Your task to perform on an android device: Go to Reddit.com Image 0: 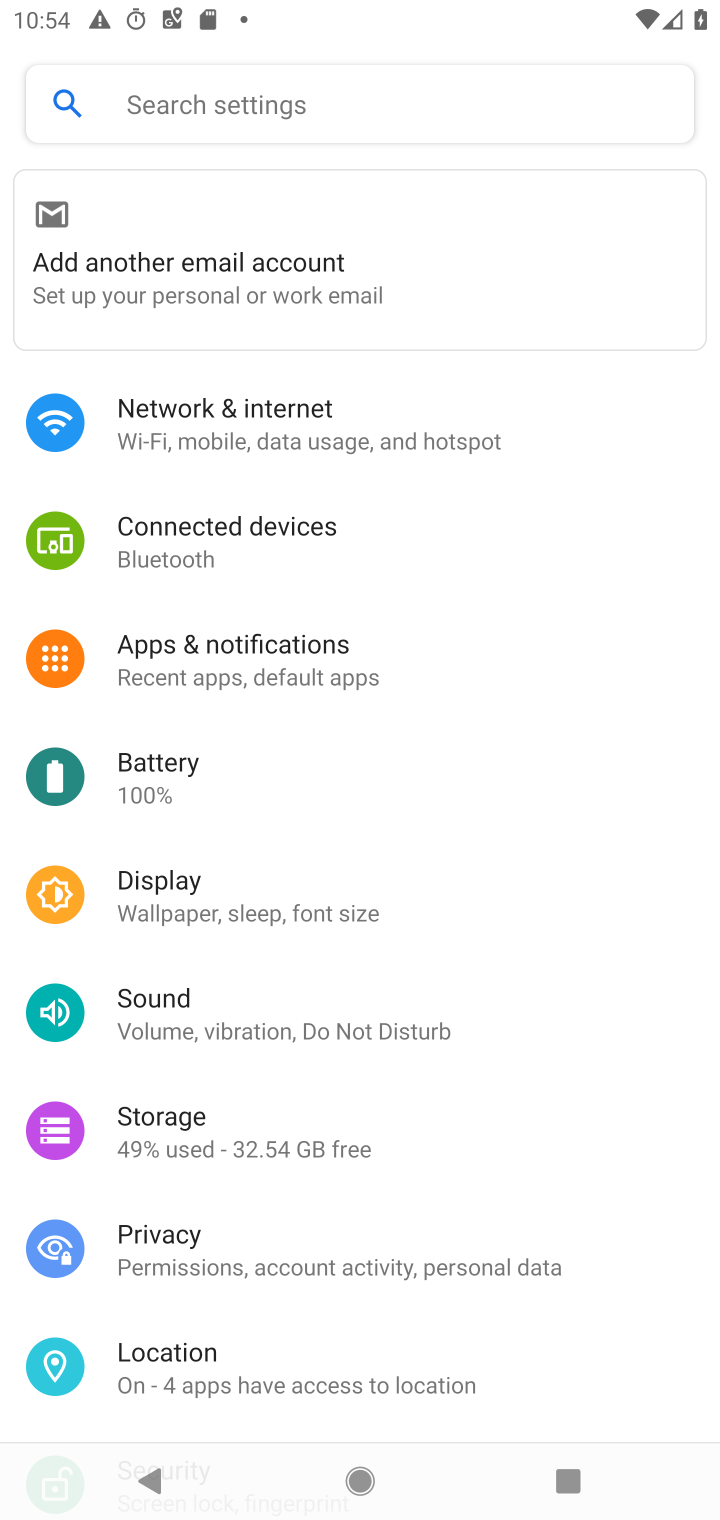
Step 0: press home button
Your task to perform on an android device: Go to Reddit.com Image 1: 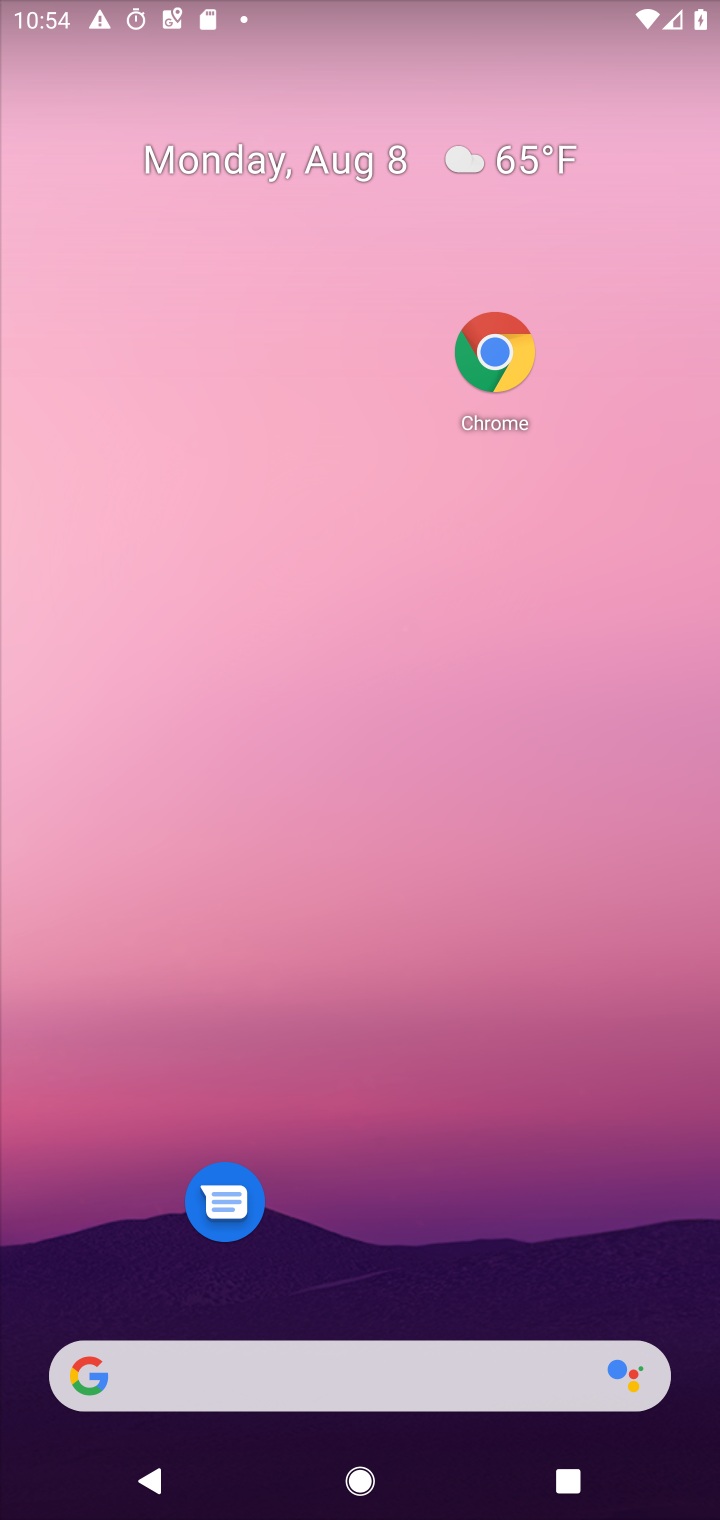
Step 1: drag from (348, 888) to (339, 666)
Your task to perform on an android device: Go to Reddit.com Image 2: 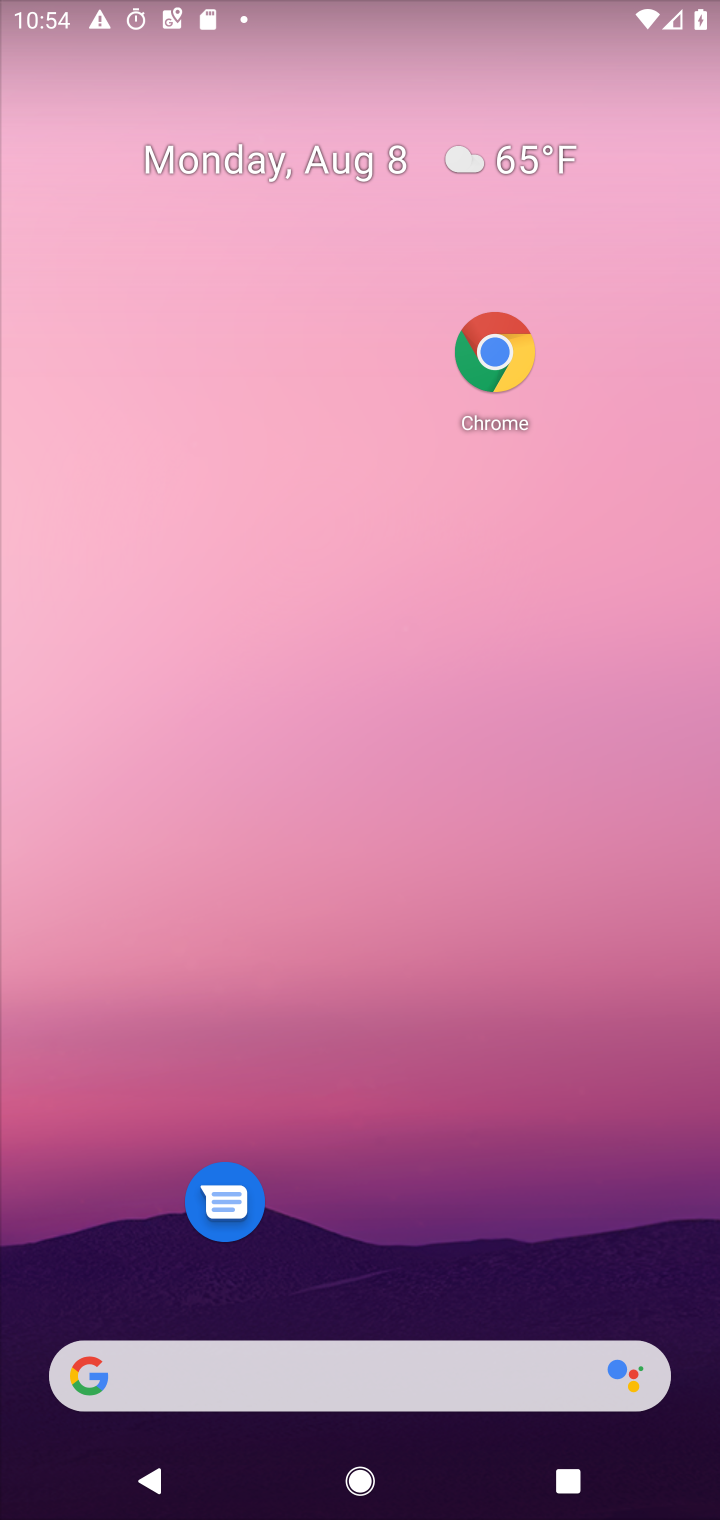
Step 2: click (507, 373)
Your task to perform on an android device: Go to Reddit.com Image 3: 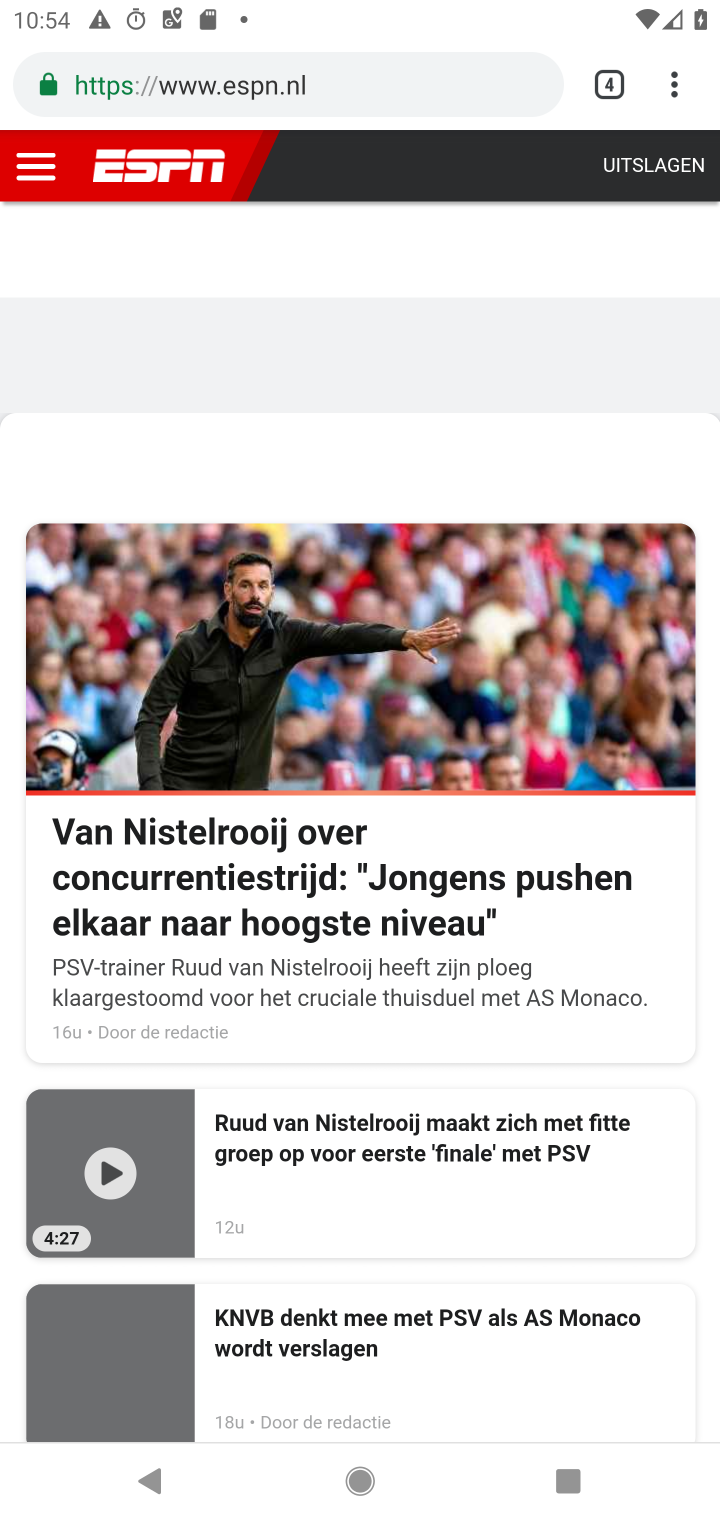
Step 3: click (666, 87)
Your task to perform on an android device: Go to Reddit.com Image 4: 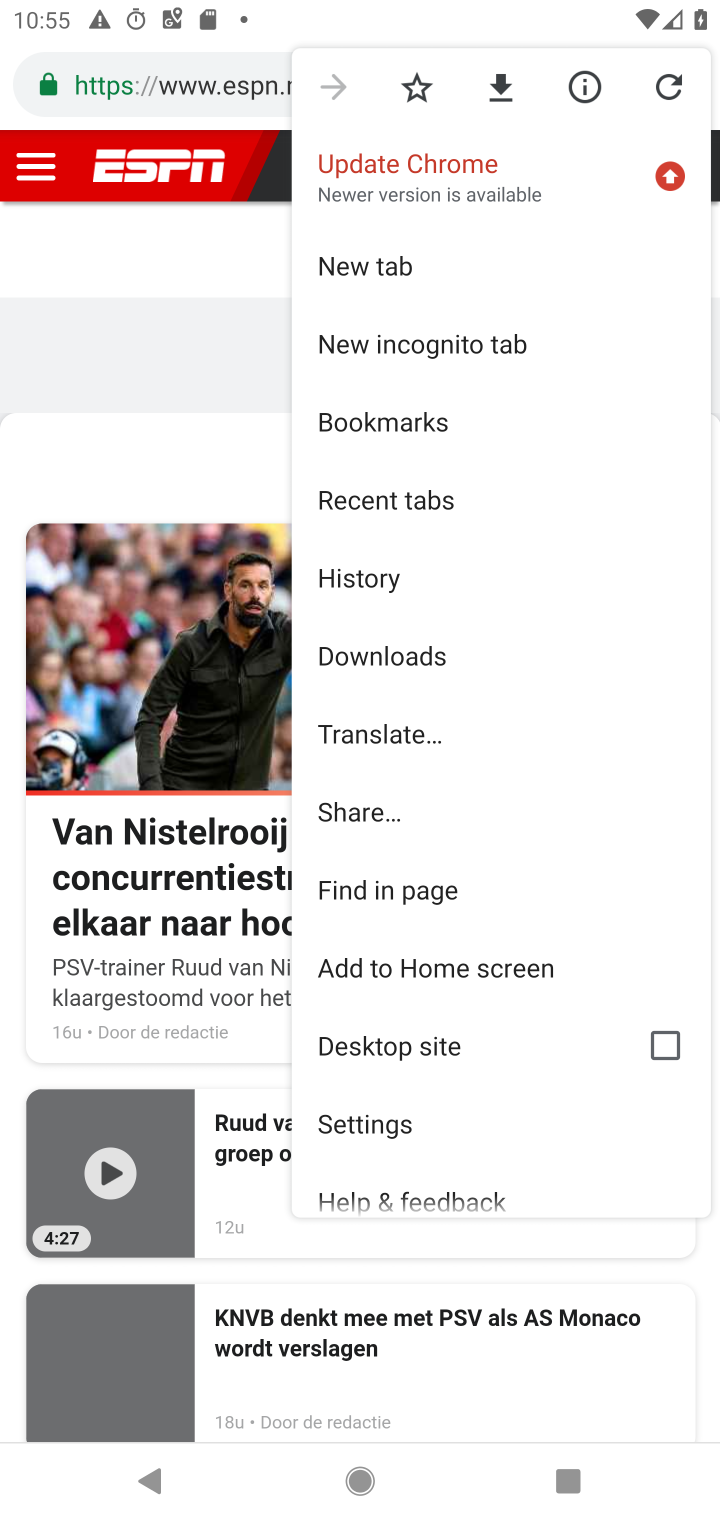
Step 4: click (185, 383)
Your task to perform on an android device: Go to Reddit.com Image 5: 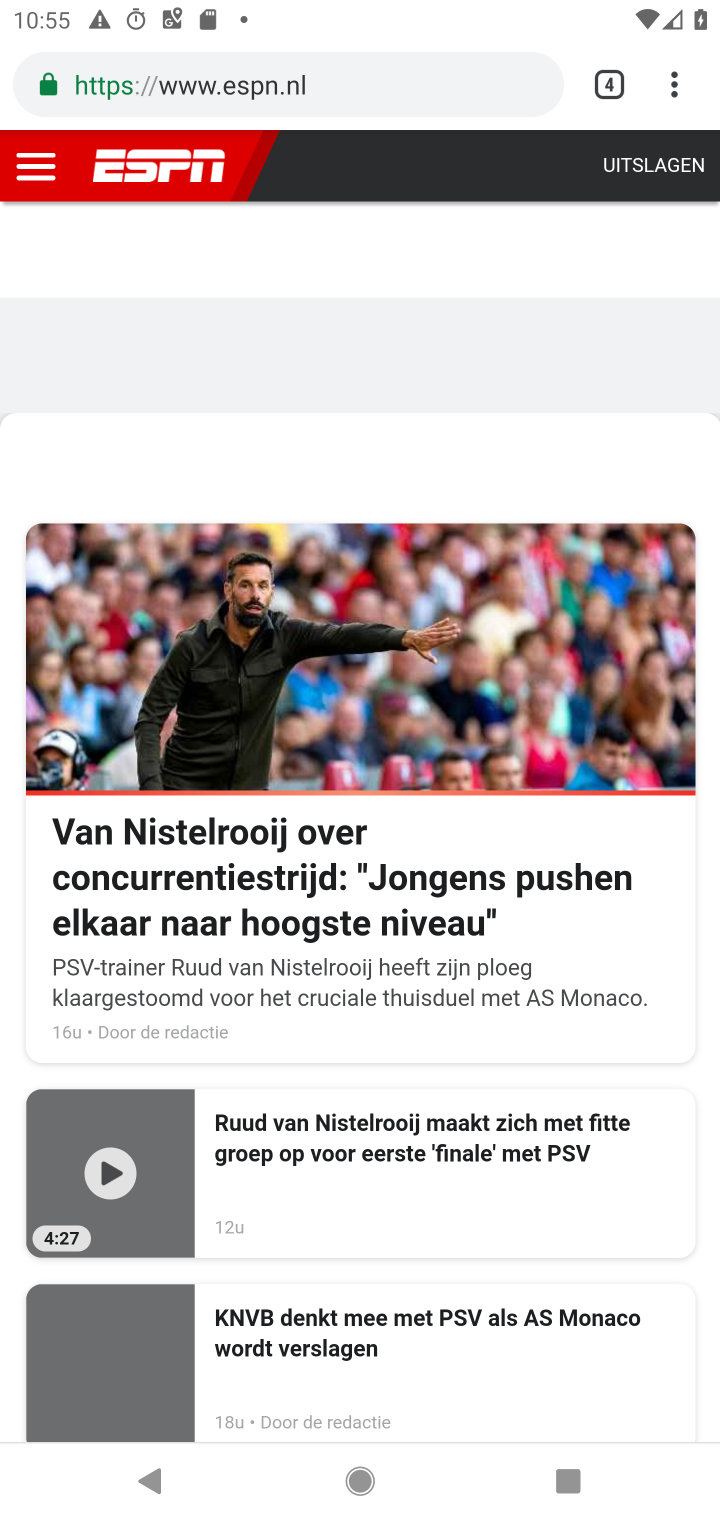
Step 5: click (133, 257)
Your task to perform on an android device: Go to Reddit.com Image 6: 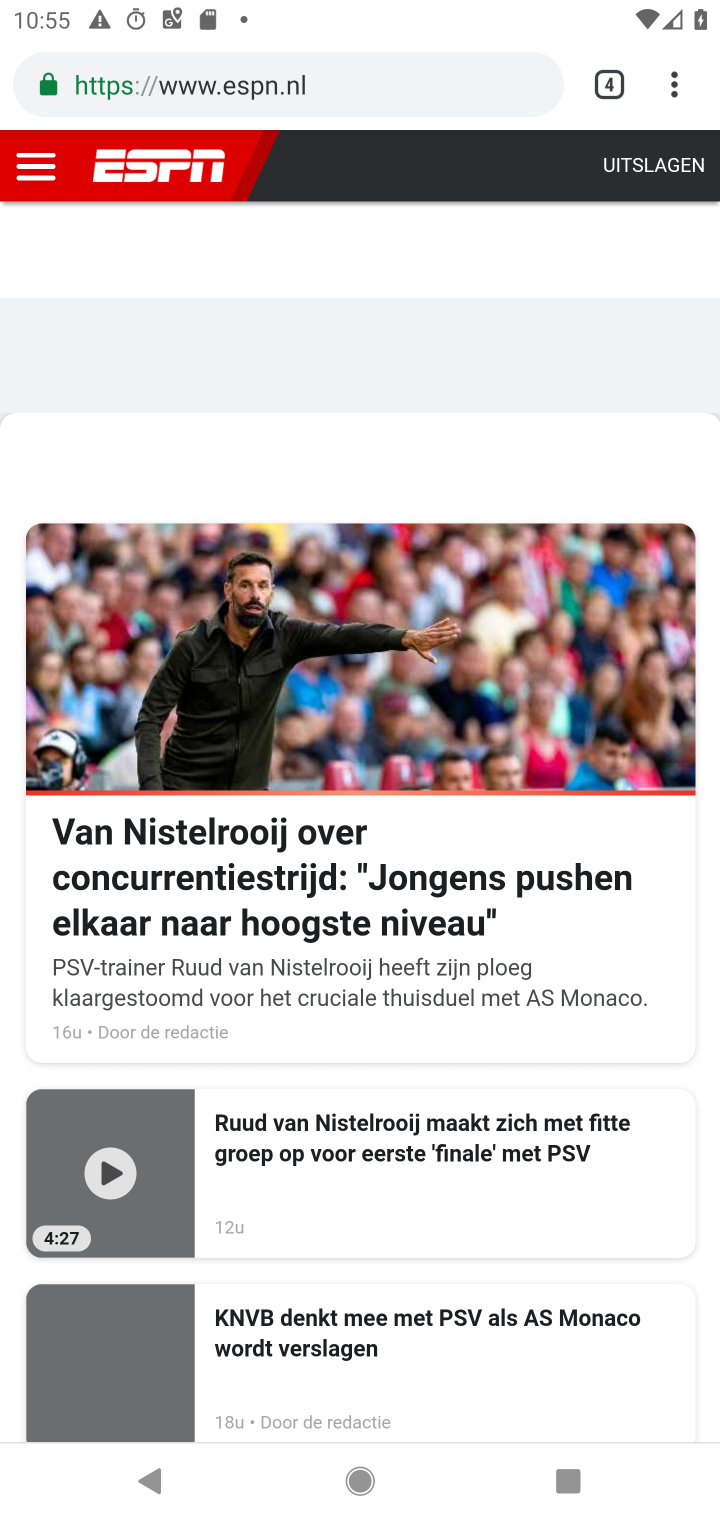
Step 6: click (279, 84)
Your task to perform on an android device: Go to Reddit.com Image 7: 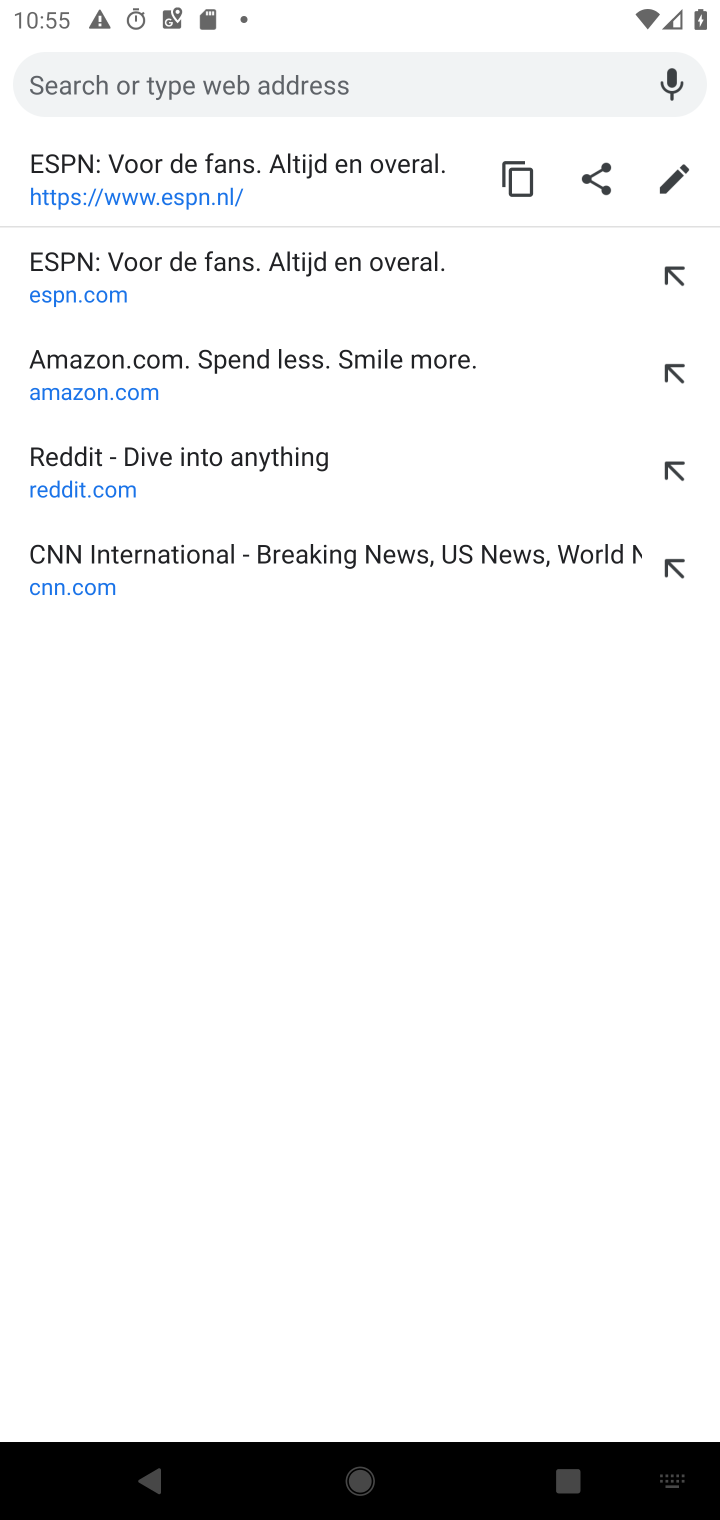
Step 7: click (162, 450)
Your task to perform on an android device: Go to Reddit.com Image 8: 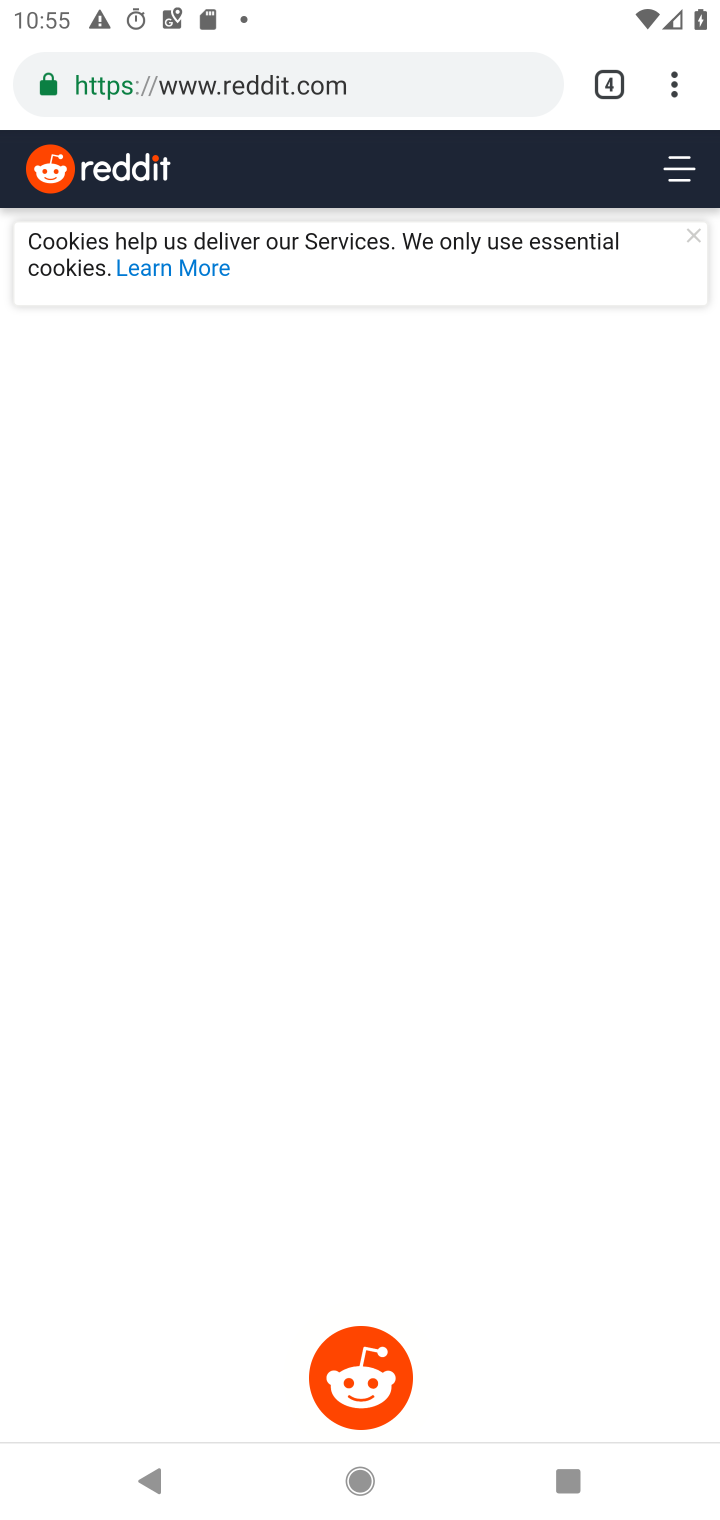
Step 8: task complete